Your task to perform on an android device: Open privacy settings Image 0: 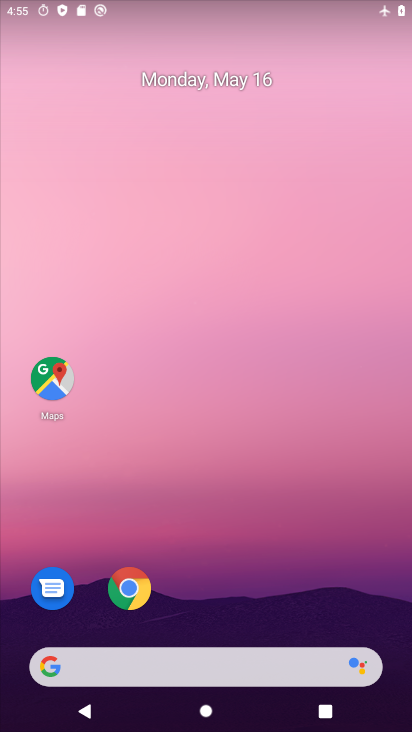
Step 0: drag from (242, 639) to (187, 133)
Your task to perform on an android device: Open privacy settings Image 1: 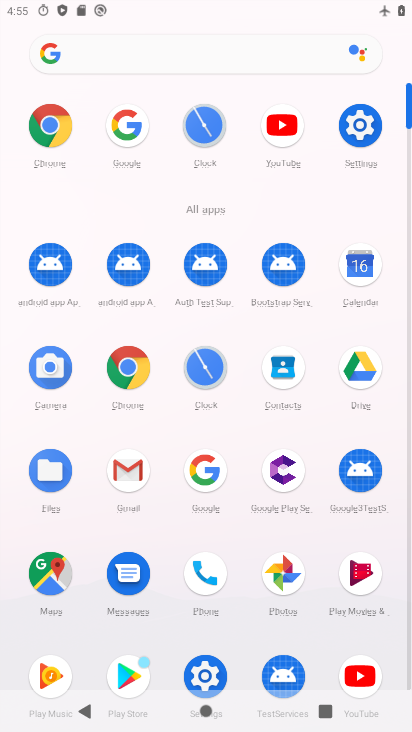
Step 1: click (345, 127)
Your task to perform on an android device: Open privacy settings Image 2: 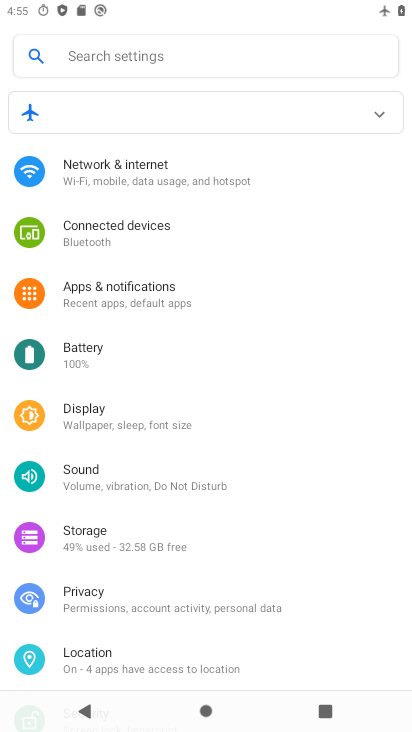
Step 2: click (201, 594)
Your task to perform on an android device: Open privacy settings Image 3: 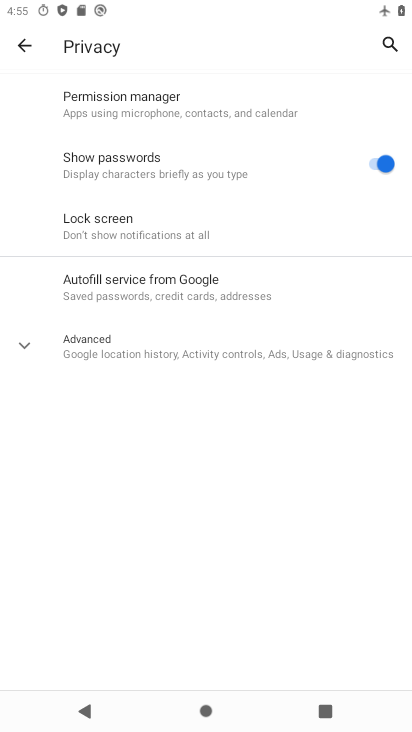
Step 3: task complete